Your task to perform on an android device: Open privacy settings Image 0: 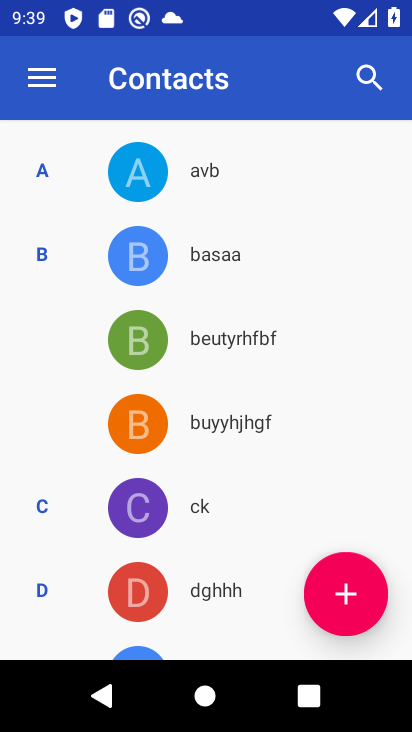
Step 0: press home button
Your task to perform on an android device: Open privacy settings Image 1: 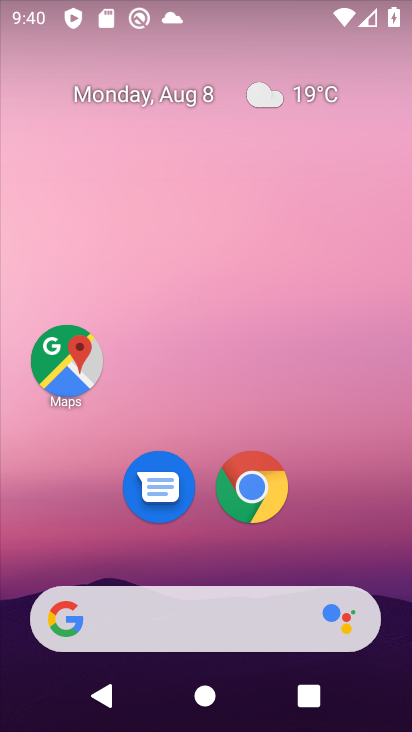
Step 1: drag from (204, 544) to (212, 141)
Your task to perform on an android device: Open privacy settings Image 2: 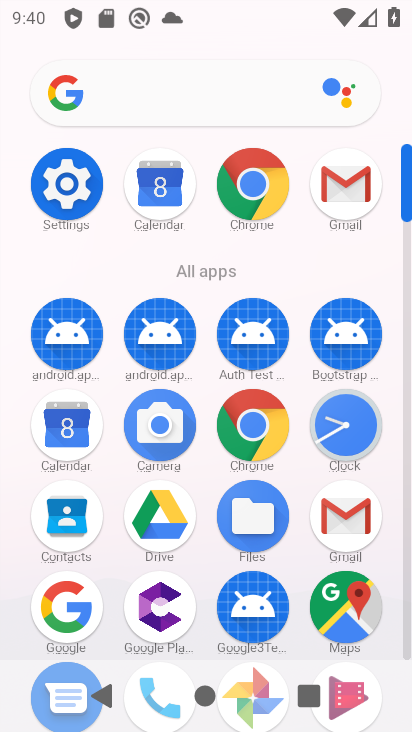
Step 2: click (70, 188)
Your task to perform on an android device: Open privacy settings Image 3: 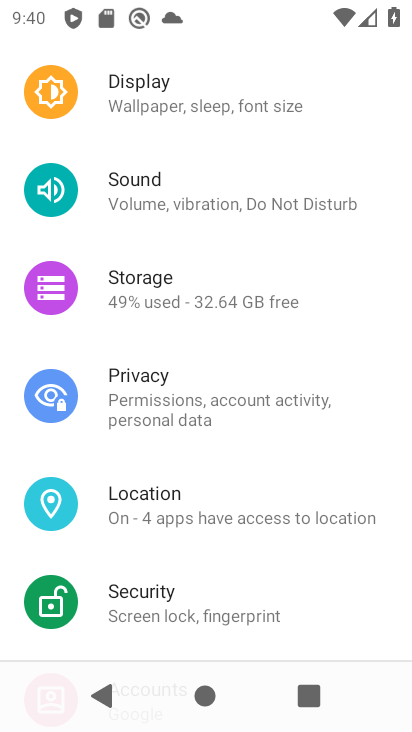
Step 3: click (137, 373)
Your task to perform on an android device: Open privacy settings Image 4: 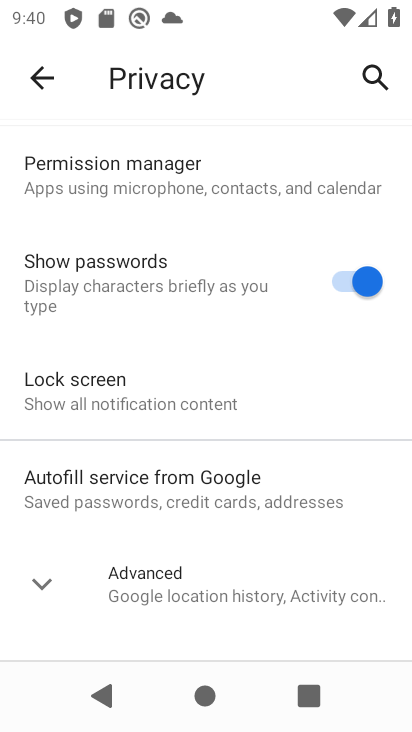
Step 4: task complete